Your task to perform on an android device: Go to sound settings Image 0: 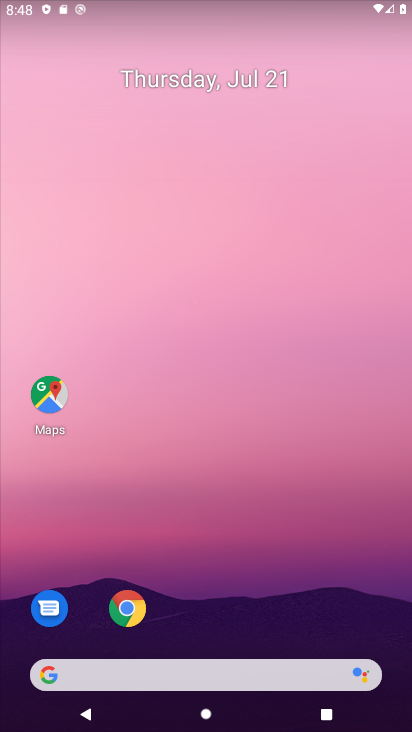
Step 0: drag from (238, 616) to (198, 259)
Your task to perform on an android device: Go to sound settings Image 1: 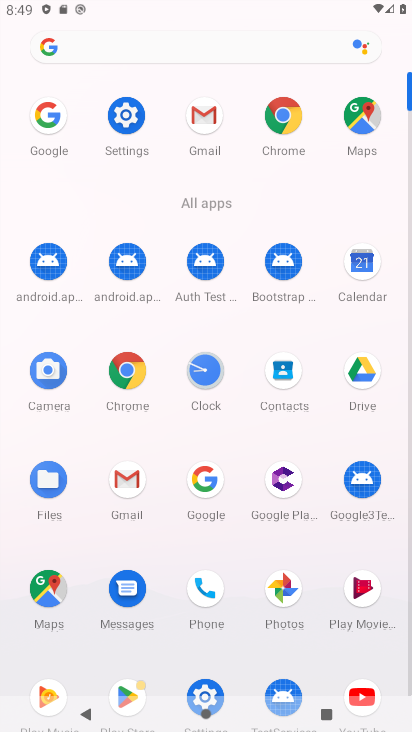
Step 1: click (121, 113)
Your task to perform on an android device: Go to sound settings Image 2: 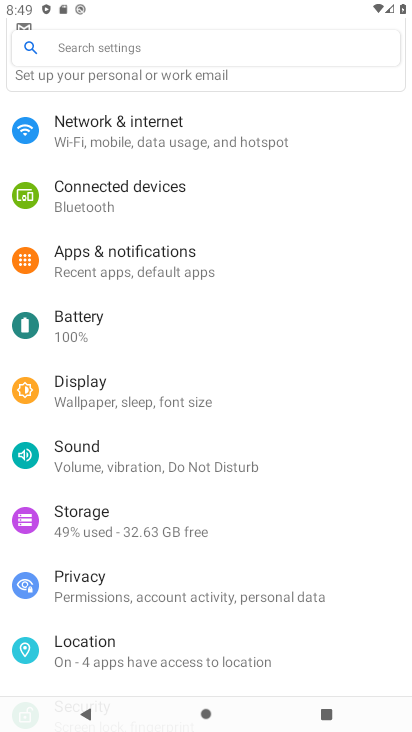
Step 2: click (134, 462)
Your task to perform on an android device: Go to sound settings Image 3: 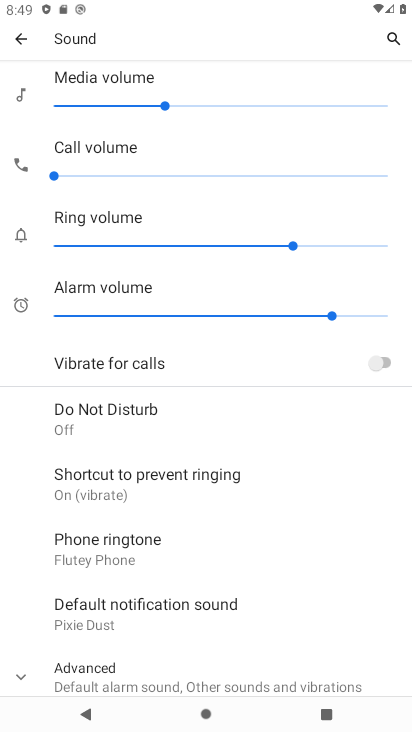
Step 3: task complete